Your task to perform on an android device: Add "dell alienware" to the cart on costco.com, then select checkout. Image 0: 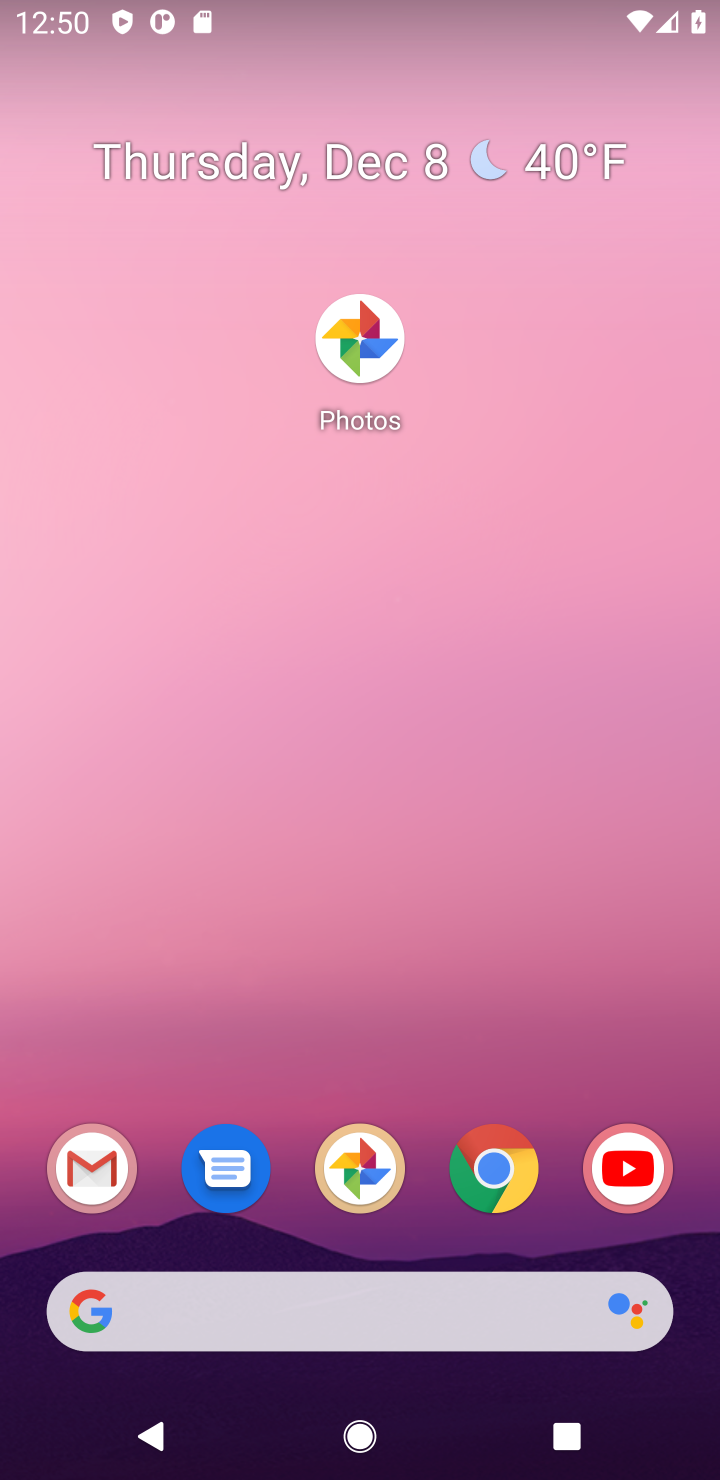
Step 0: drag from (403, 1055) to (393, 74)
Your task to perform on an android device: Add "dell alienware" to the cart on costco.com, then select checkout. Image 1: 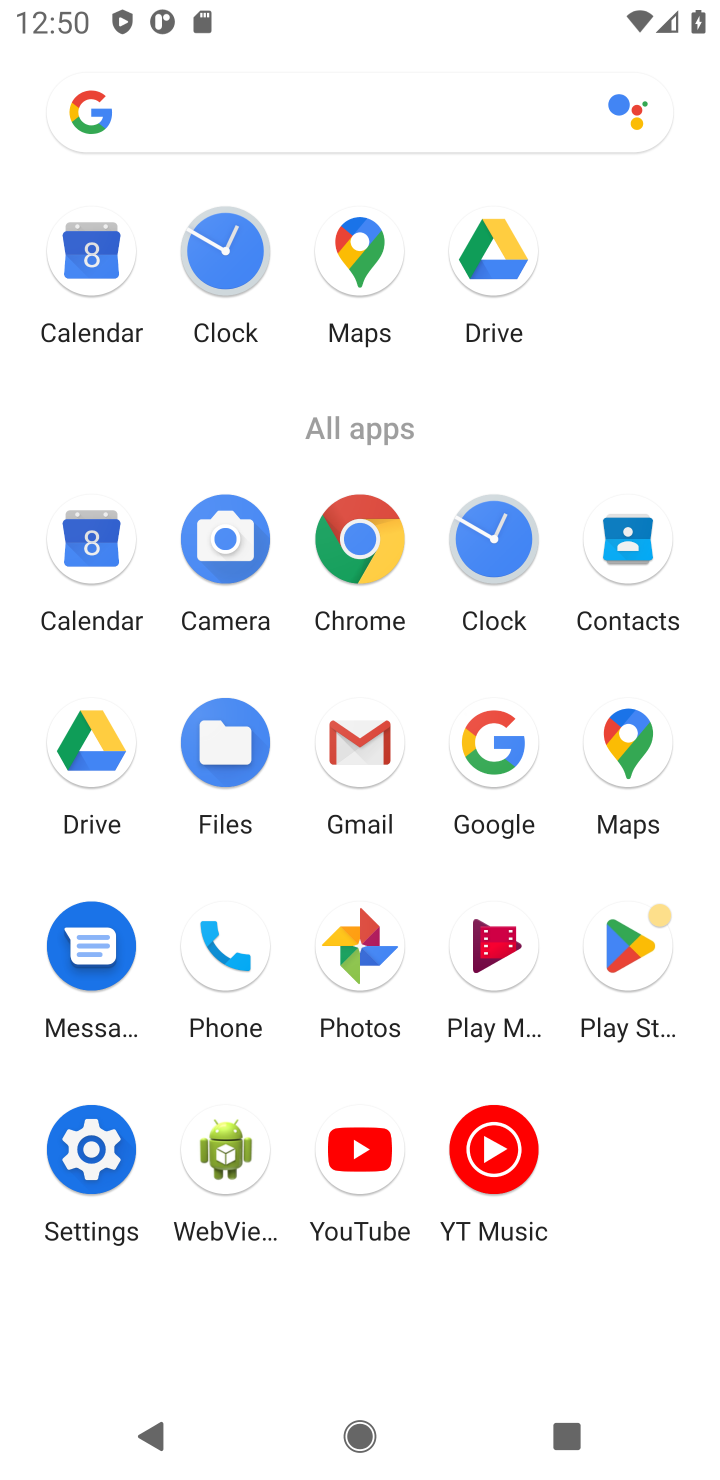
Step 1: click (505, 745)
Your task to perform on an android device: Add "dell alienware" to the cart on costco.com, then select checkout. Image 2: 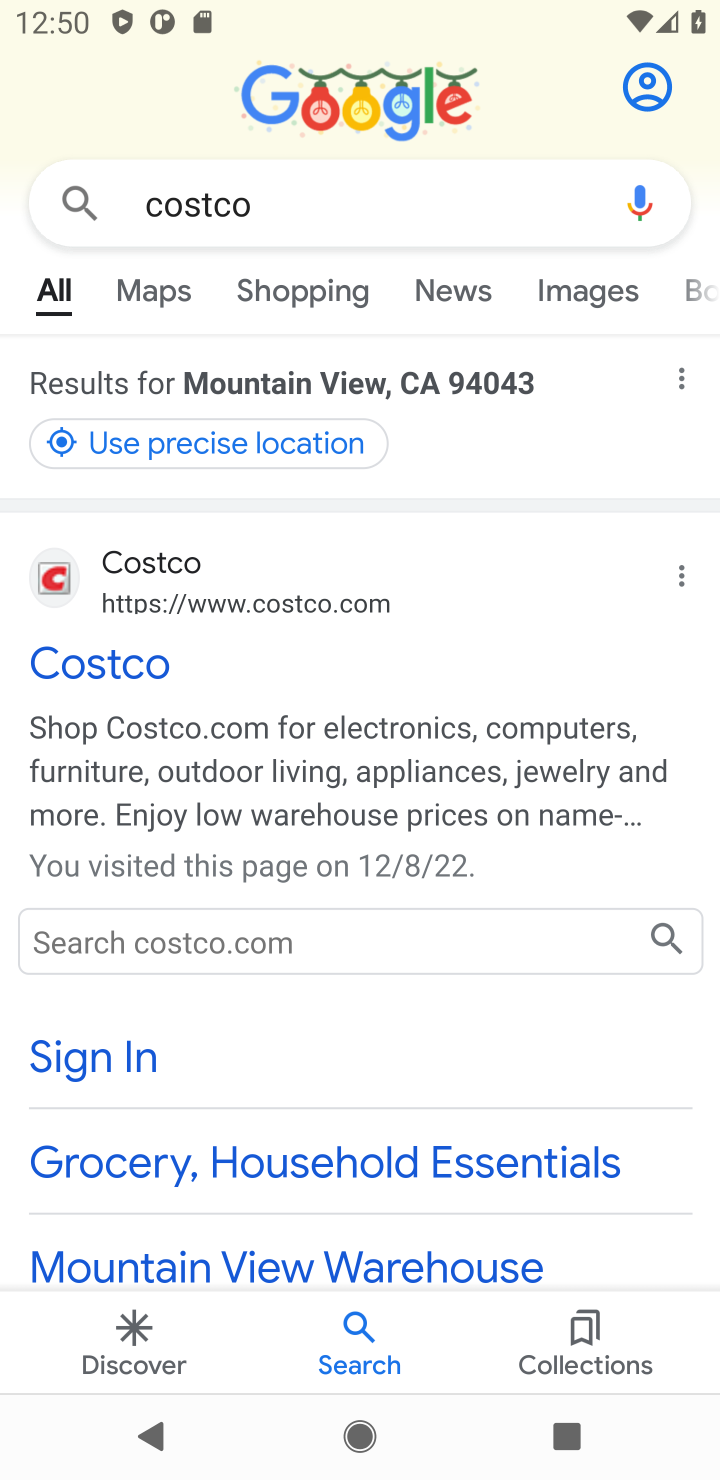
Step 2: click (320, 226)
Your task to perform on an android device: Add "dell alienware" to the cart on costco.com, then select checkout. Image 3: 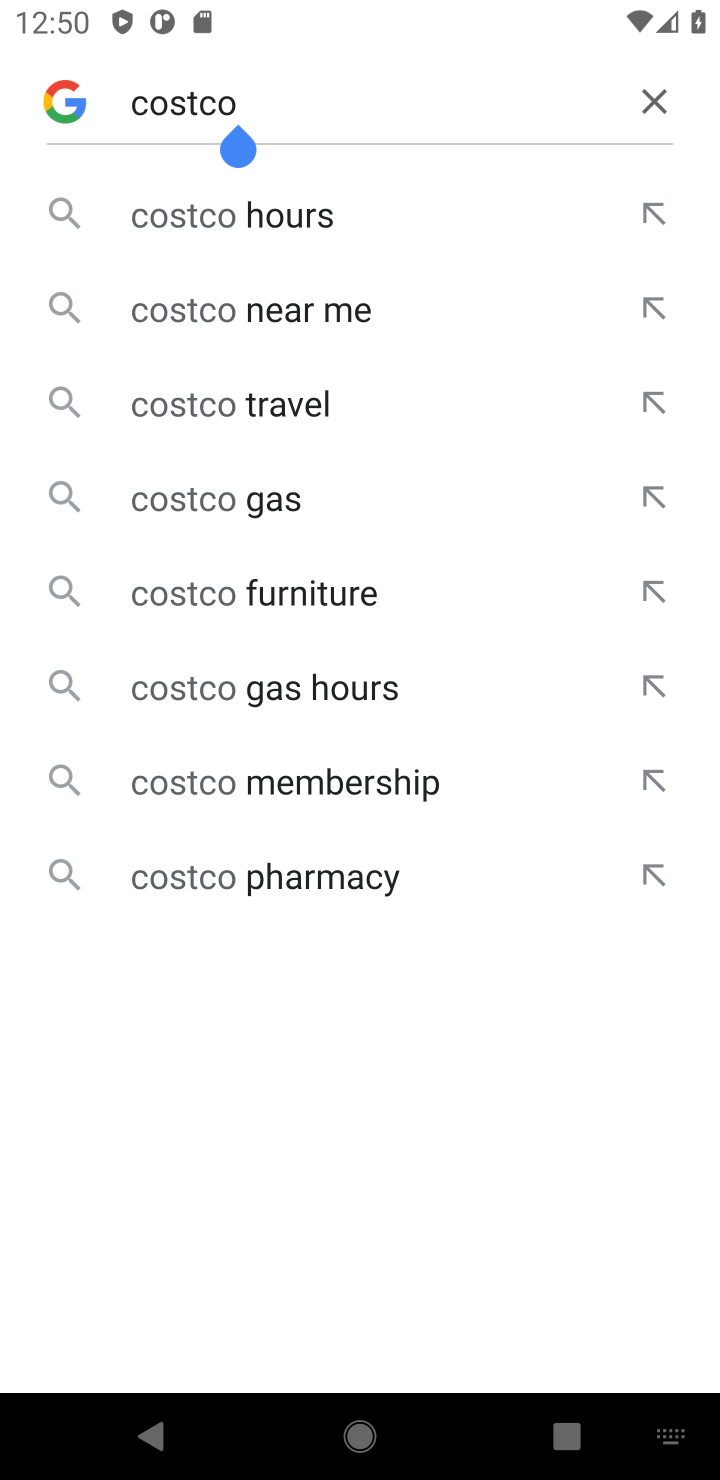
Step 3: click (632, 102)
Your task to perform on an android device: Add "dell alienware" to the cart on costco.com, then select checkout. Image 4: 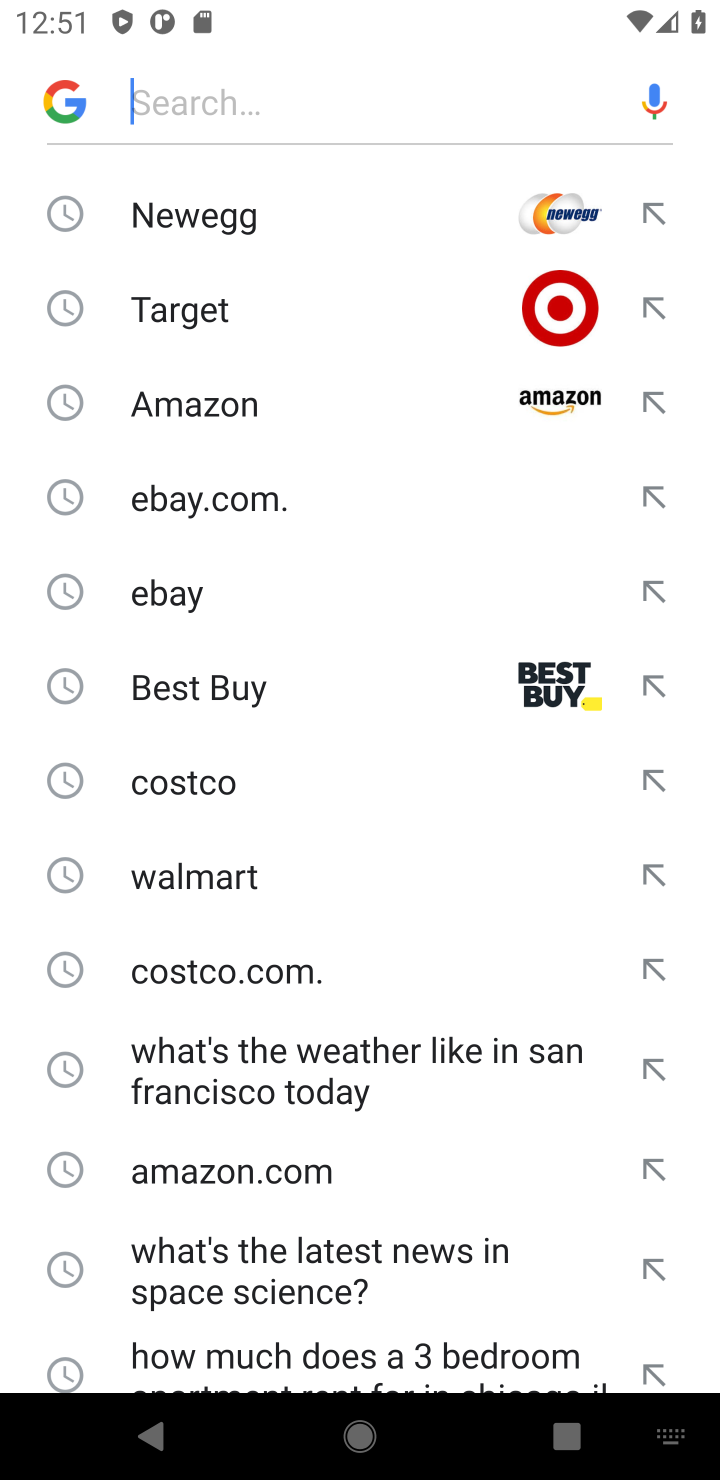
Step 4: click (181, 975)
Your task to perform on an android device: Add "dell alienware" to the cart on costco.com, then select checkout. Image 5: 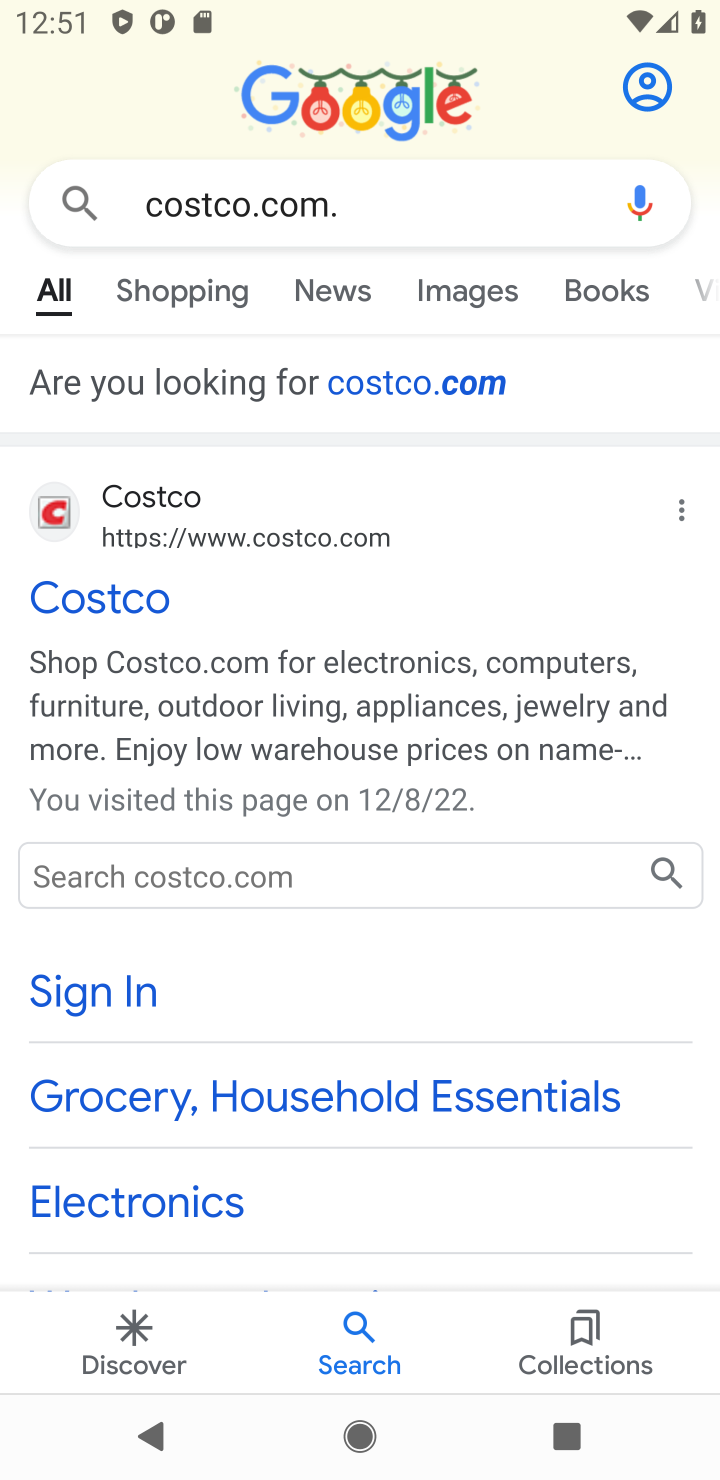
Step 5: click (359, 201)
Your task to perform on an android device: Add "dell alienware" to the cart on costco.com, then select checkout. Image 6: 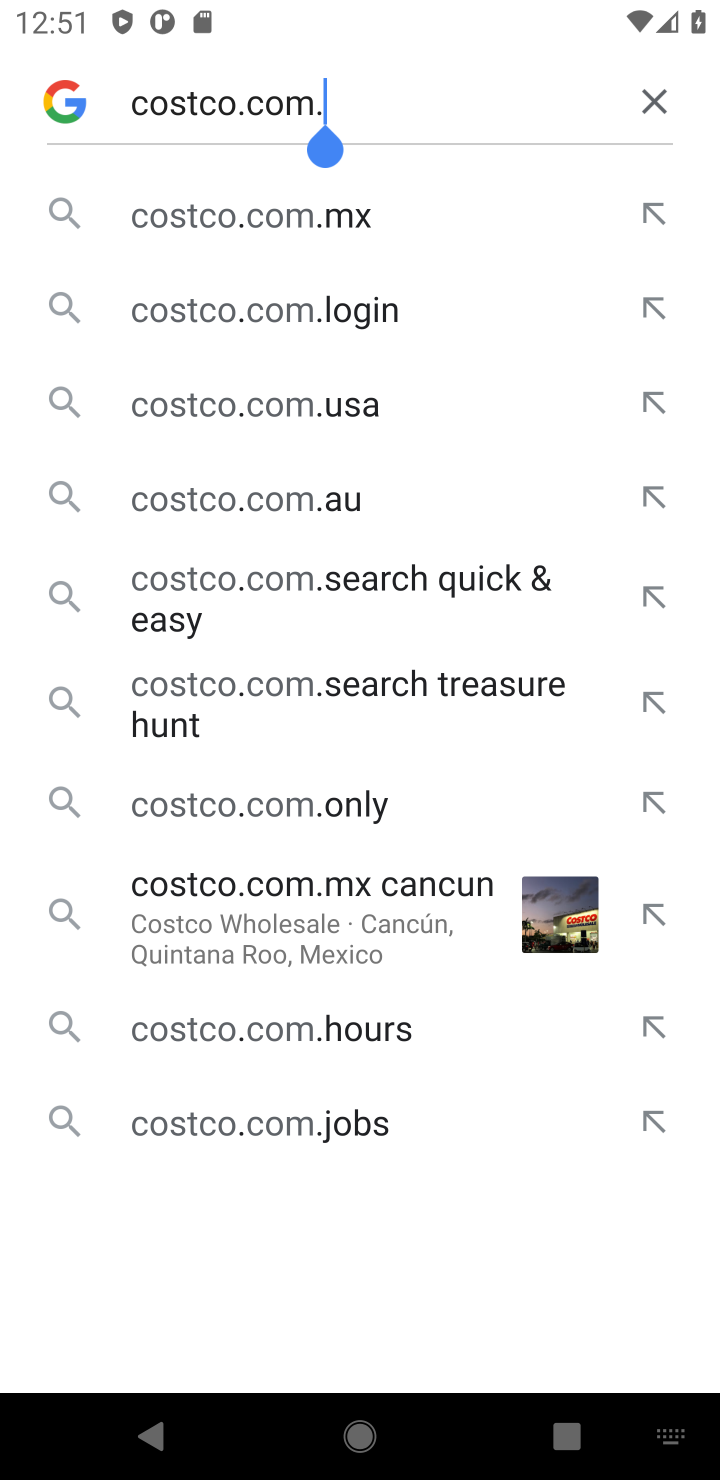
Step 6: click (669, 109)
Your task to perform on an android device: Add "dell alienware" to the cart on costco.com, then select checkout. Image 7: 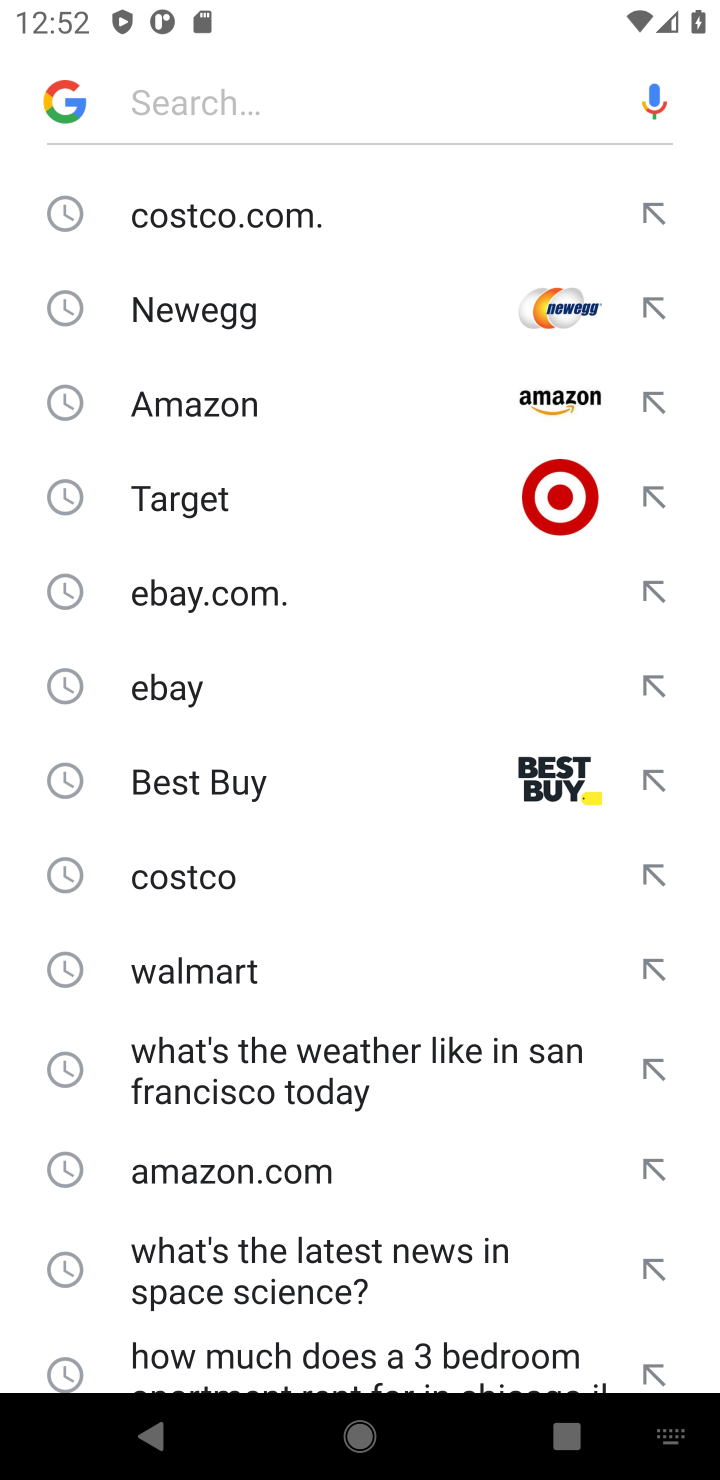
Step 7: click (158, 224)
Your task to perform on an android device: Add "dell alienware" to the cart on costco.com, then select checkout. Image 8: 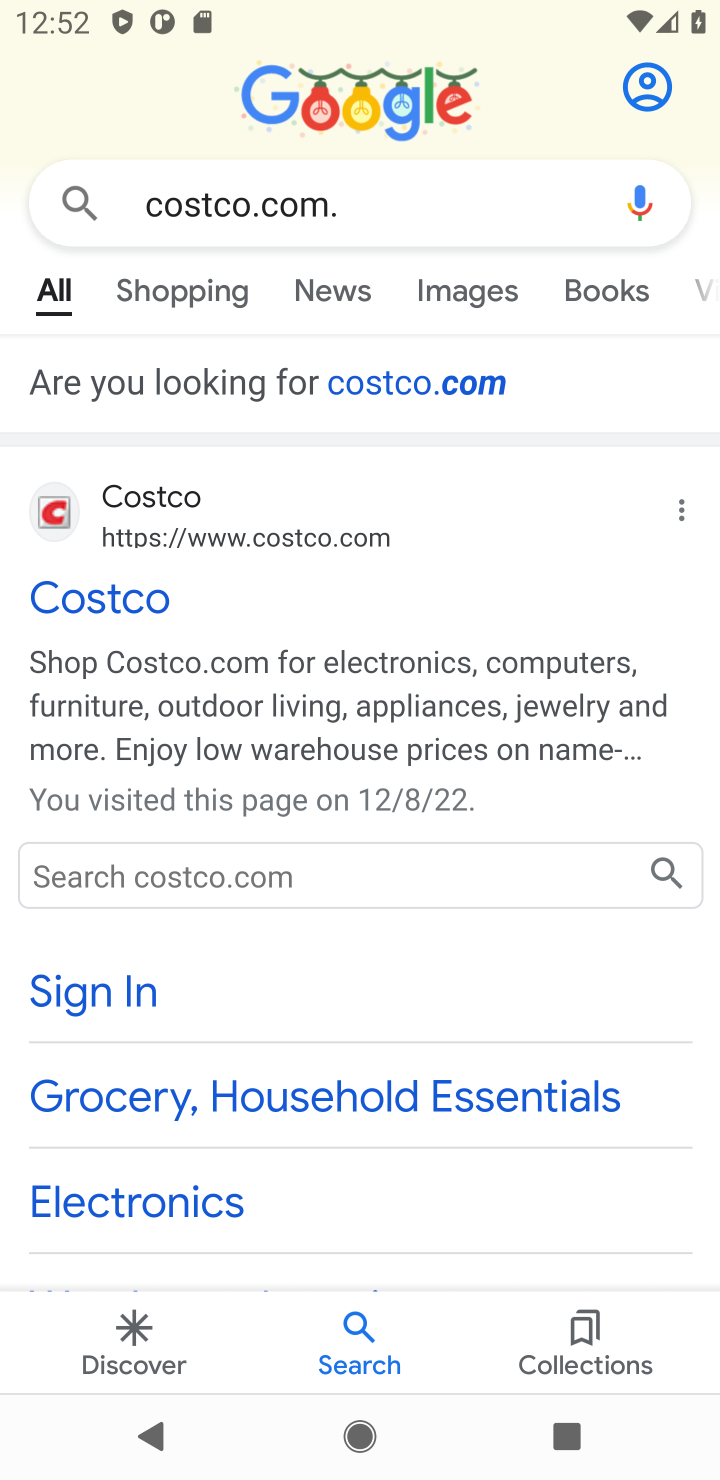
Step 8: click (102, 597)
Your task to perform on an android device: Add "dell alienware" to the cart on costco.com, then select checkout. Image 9: 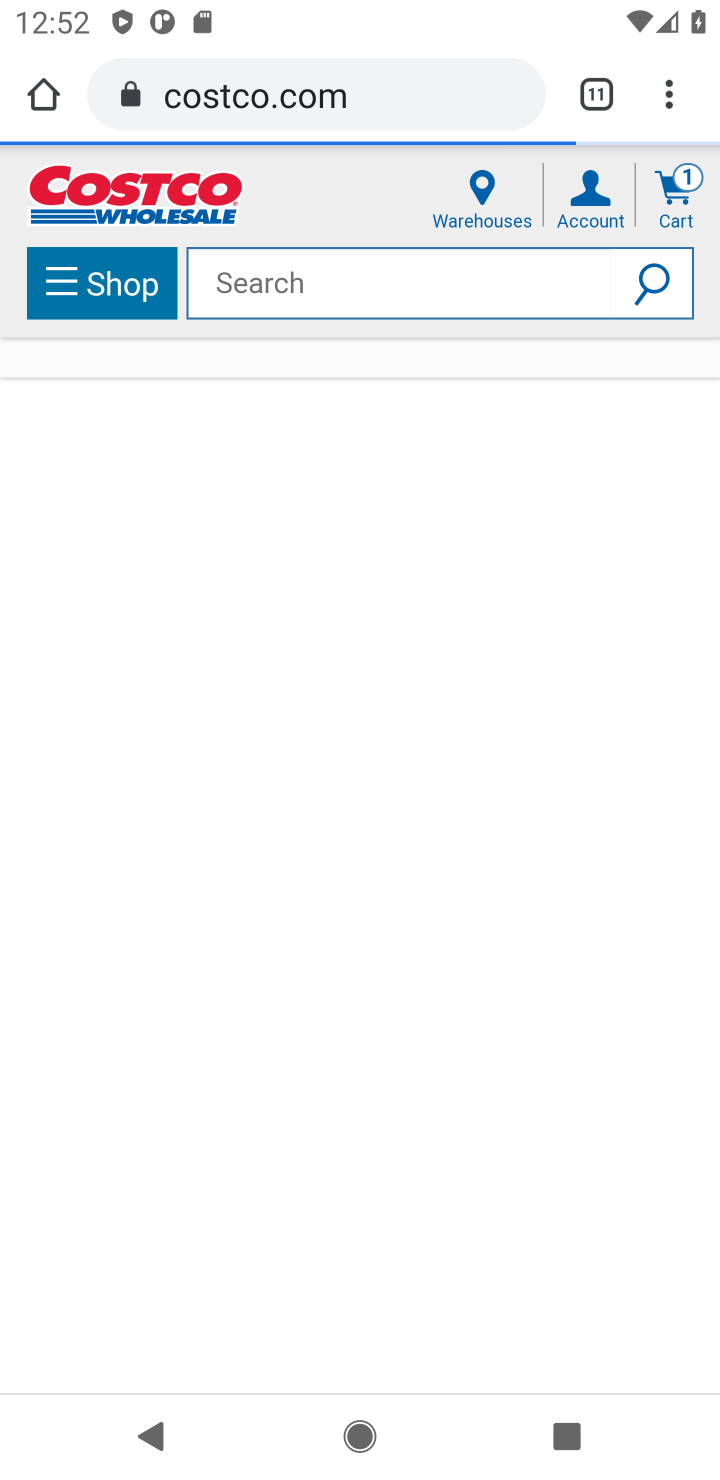
Step 9: click (288, 282)
Your task to perform on an android device: Add "dell alienware" to the cart on costco.com, then select checkout. Image 10: 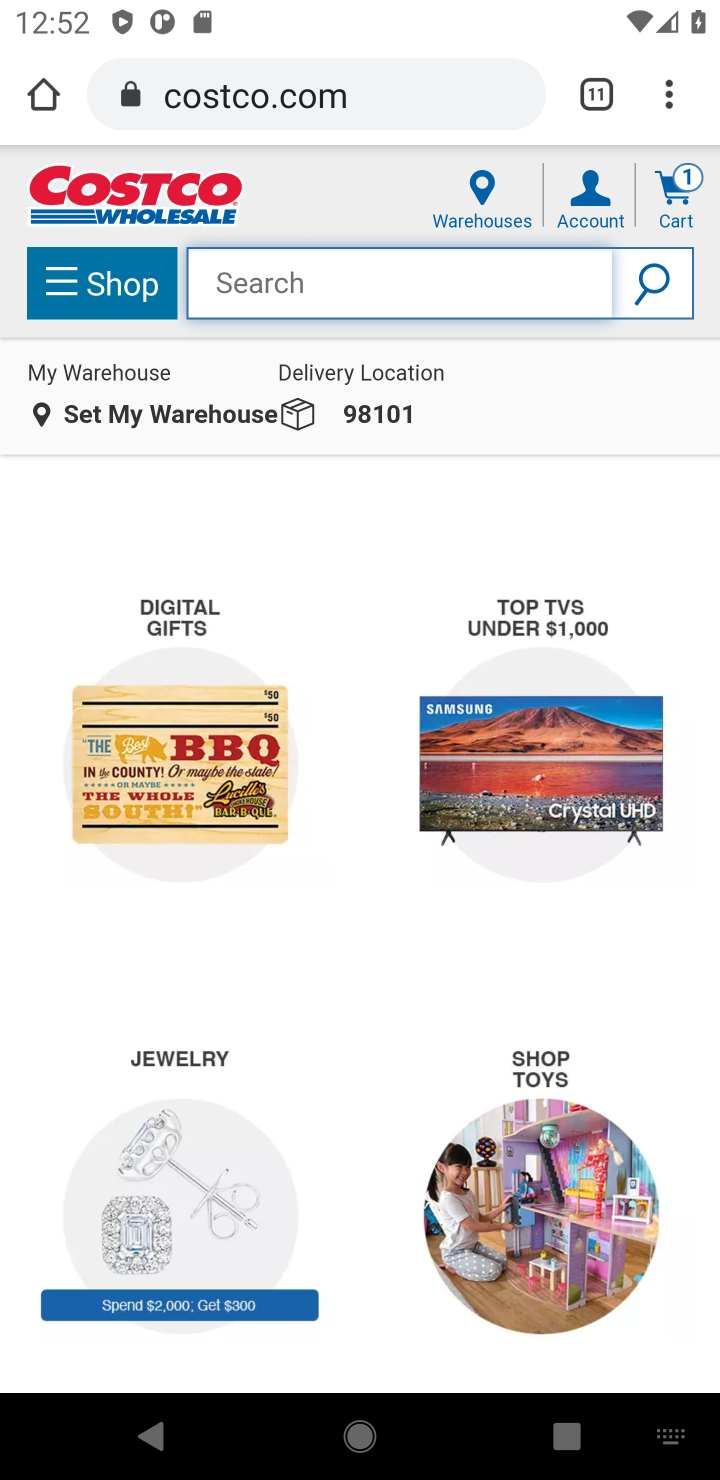
Step 10: type "dell alienware"
Your task to perform on an android device: Add "dell alienware" to the cart on costco.com, then select checkout. Image 11: 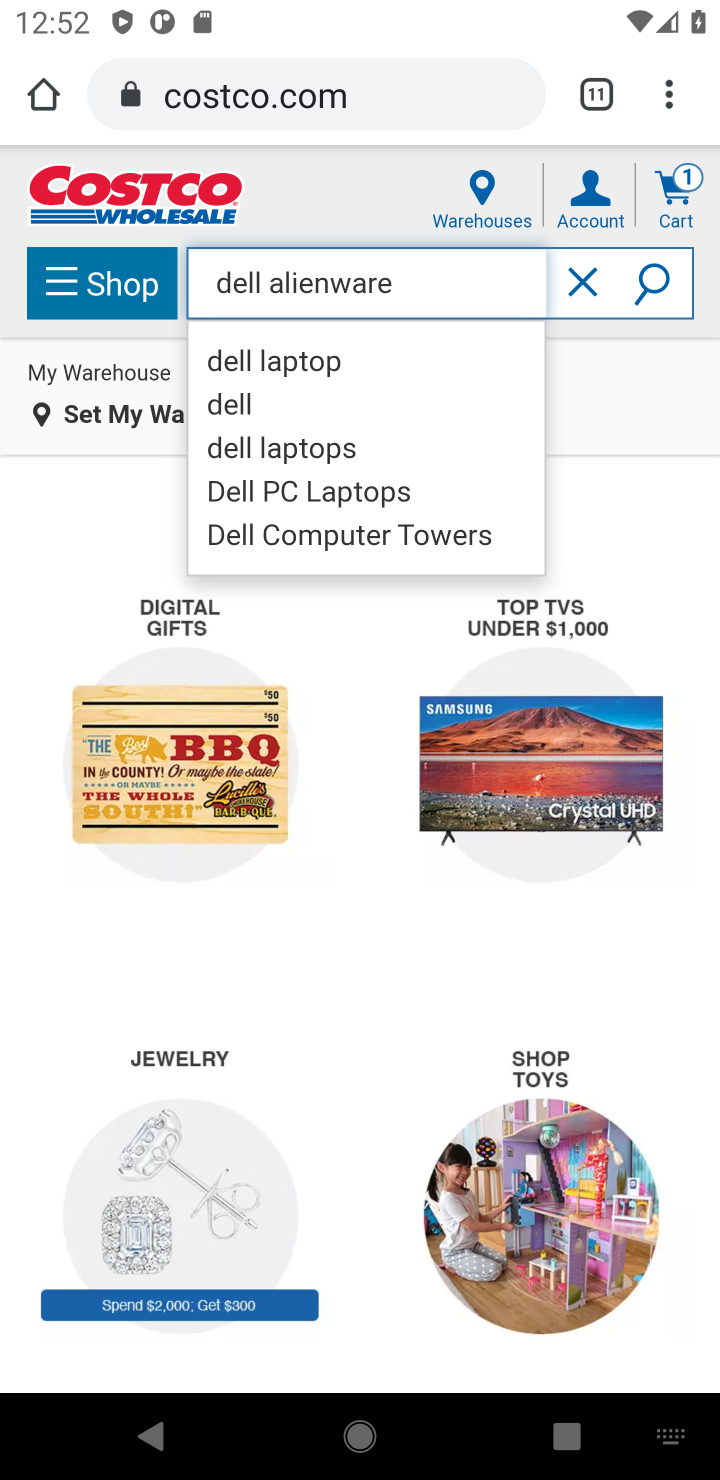
Step 11: click (649, 286)
Your task to perform on an android device: Add "dell alienware" to the cart on costco.com, then select checkout. Image 12: 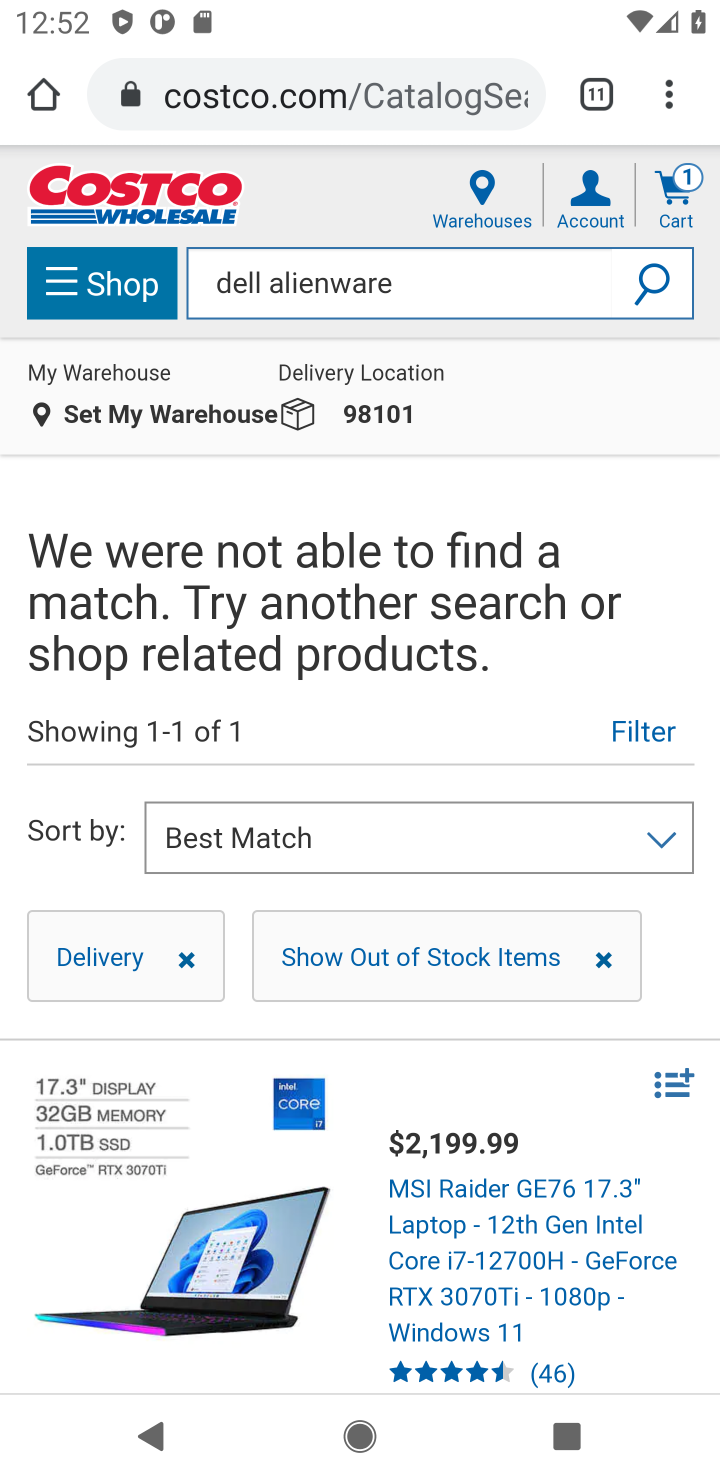
Step 12: drag from (552, 1358) to (555, 574)
Your task to perform on an android device: Add "dell alienware" to the cart on costco.com, then select checkout. Image 13: 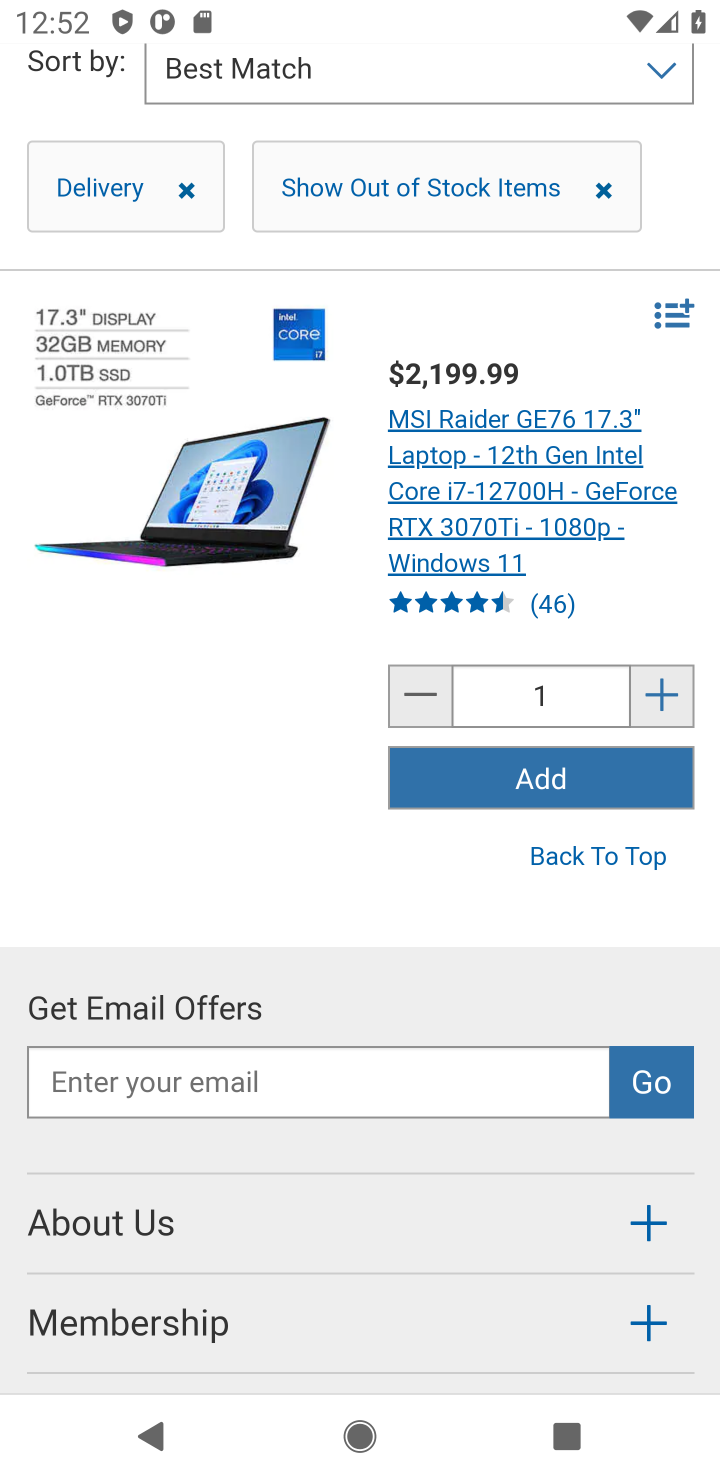
Step 13: click (538, 785)
Your task to perform on an android device: Add "dell alienware" to the cart on costco.com, then select checkout. Image 14: 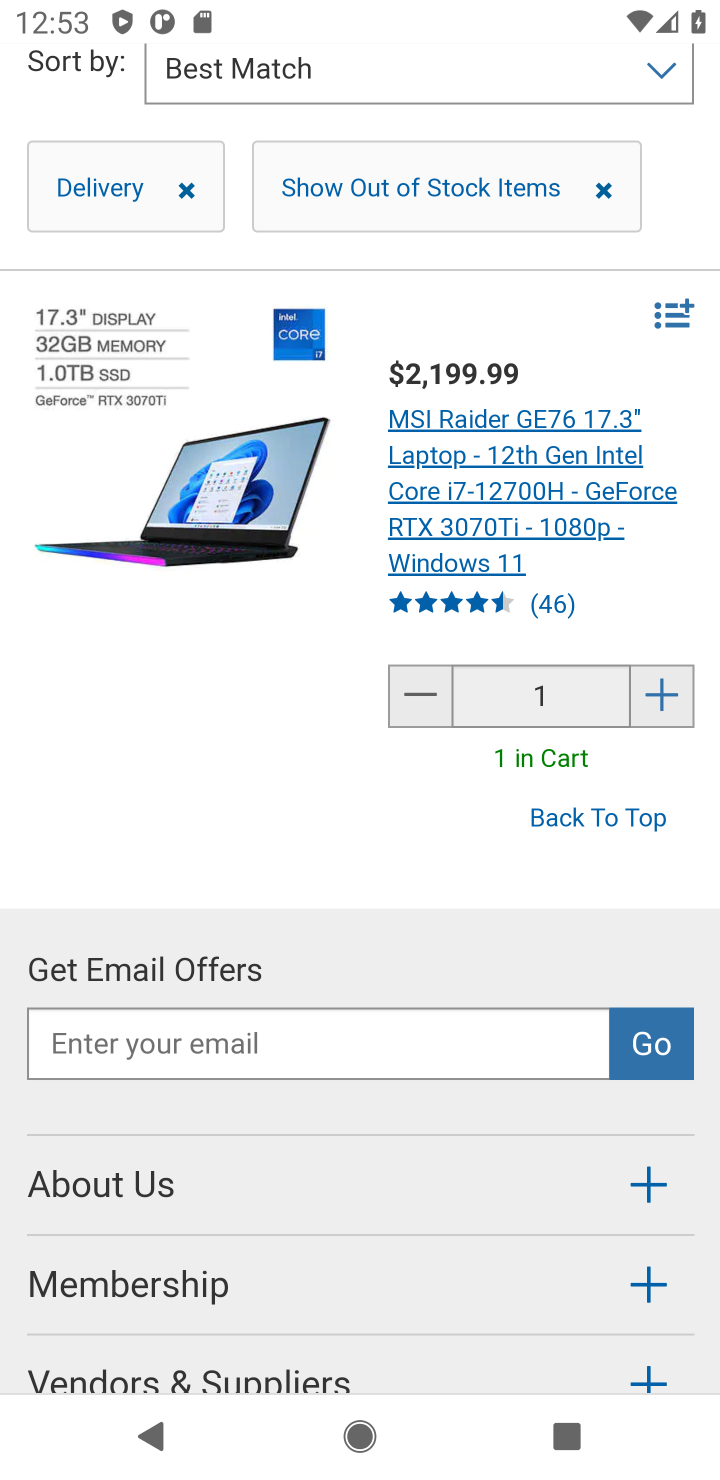
Step 14: drag from (235, 119) to (262, 711)
Your task to perform on an android device: Add "dell alienware" to the cart on costco.com, then select checkout. Image 15: 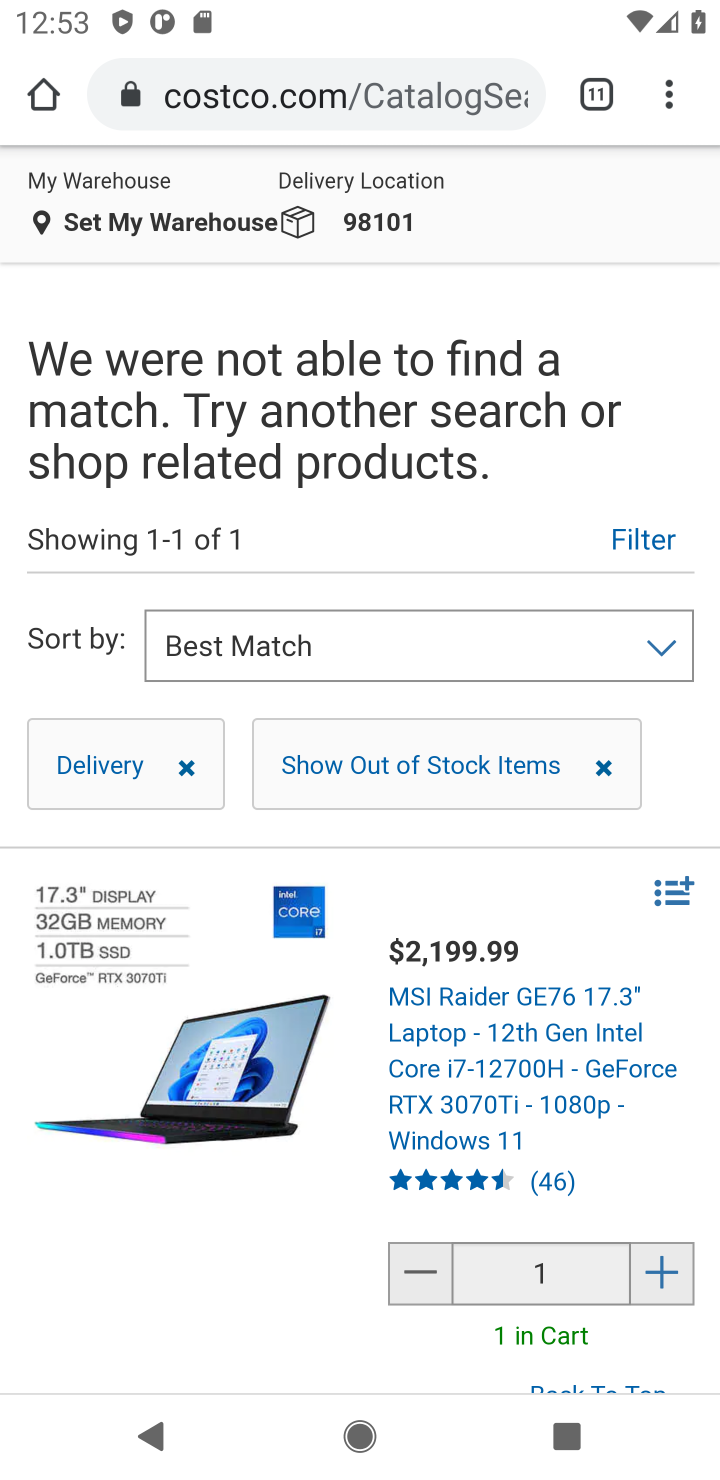
Step 15: drag from (422, 227) to (449, 1134)
Your task to perform on an android device: Add "dell alienware" to the cart on costco.com, then select checkout. Image 16: 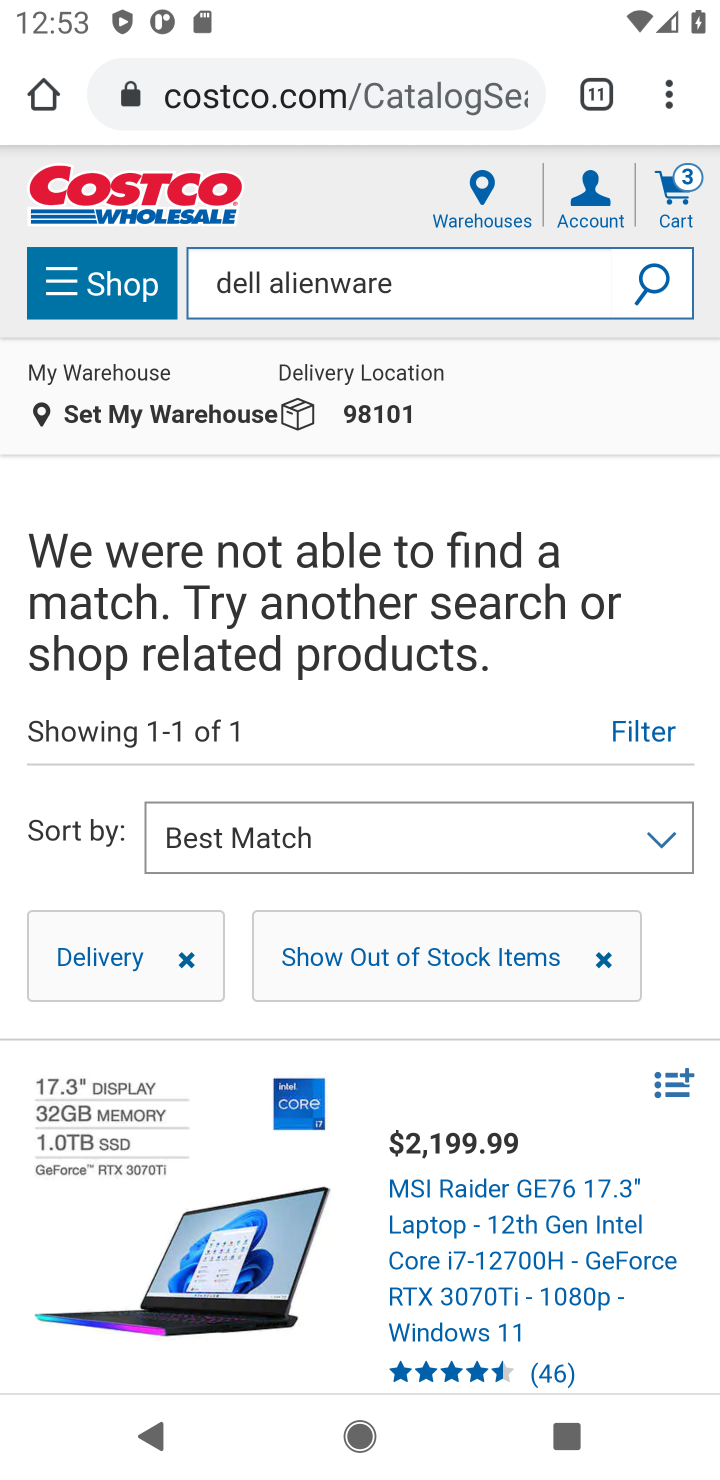
Step 16: click (712, 173)
Your task to perform on an android device: Add "dell alienware" to the cart on costco.com, then select checkout. Image 17: 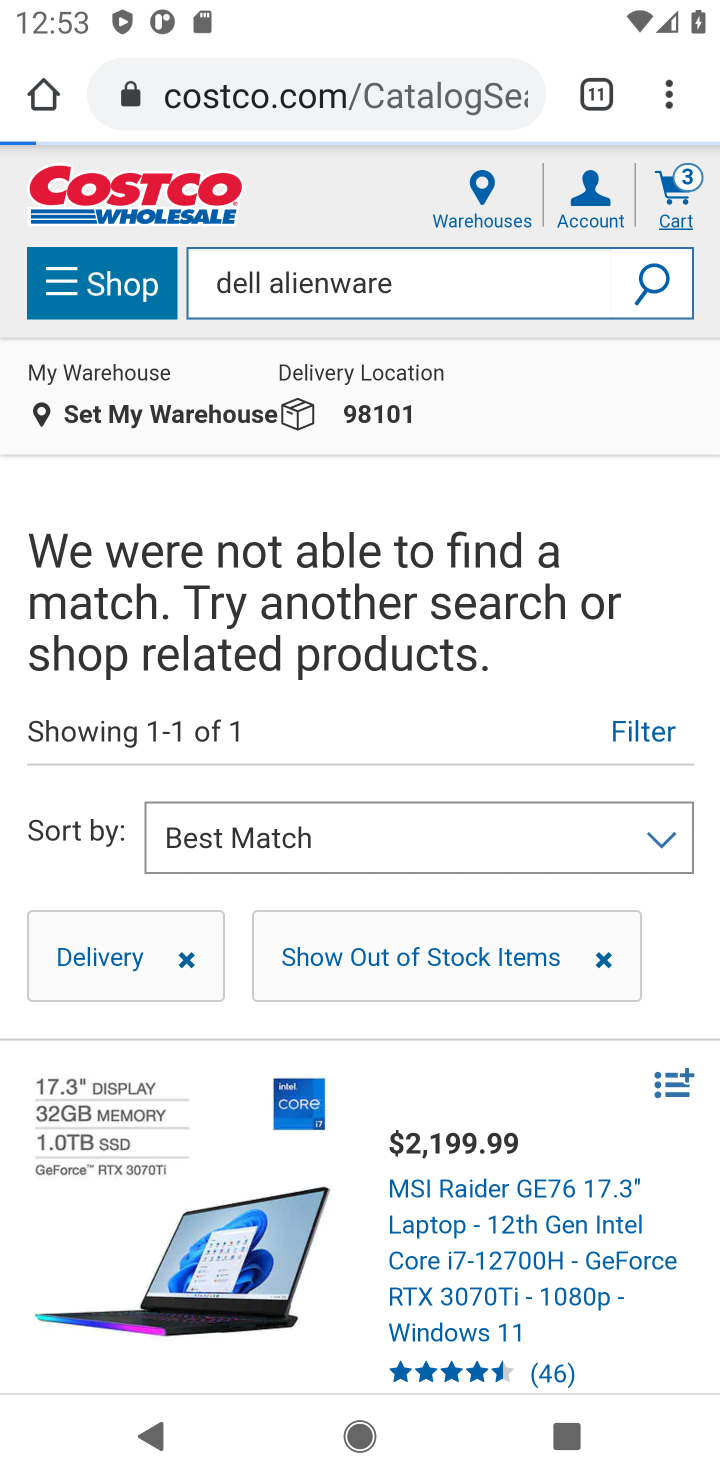
Step 17: click (670, 205)
Your task to perform on an android device: Add "dell alienware" to the cart on costco.com, then select checkout. Image 18: 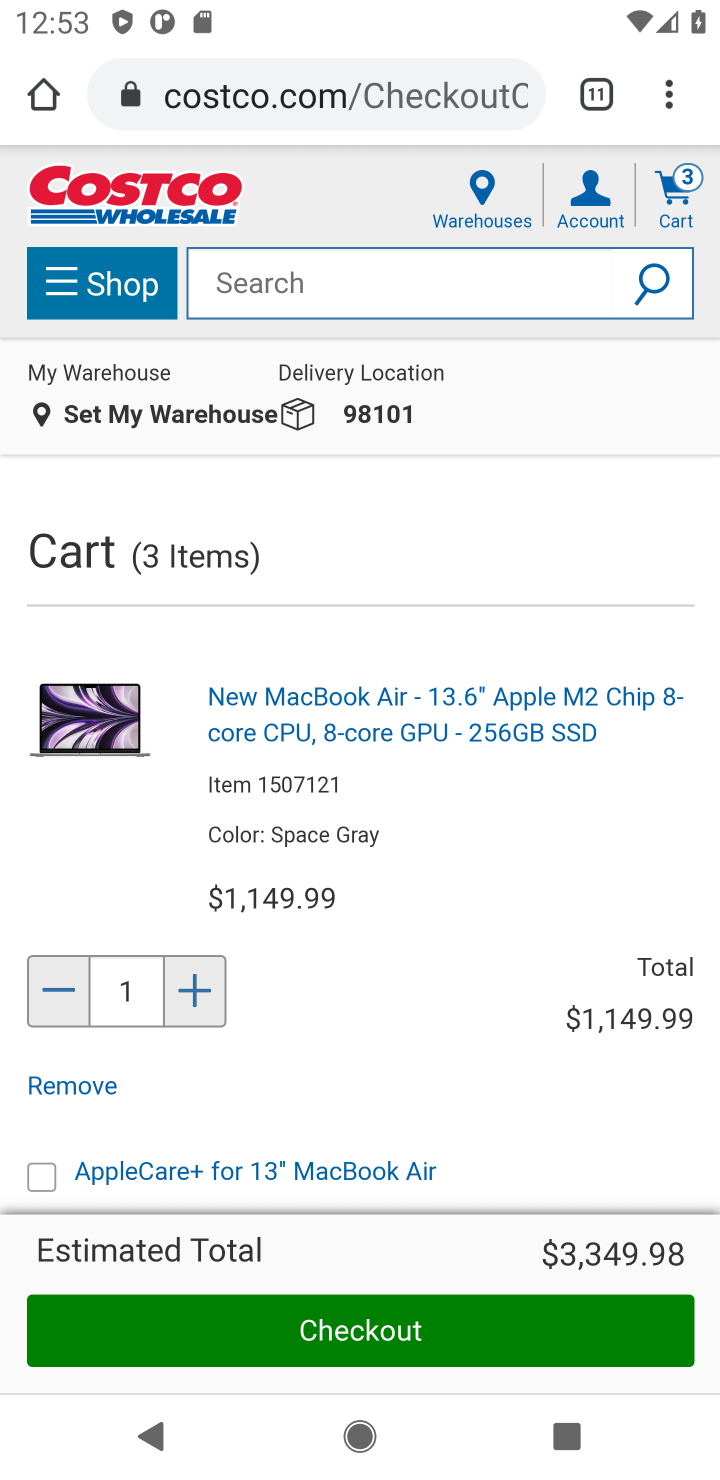
Step 18: click (357, 1328)
Your task to perform on an android device: Add "dell alienware" to the cart on costco.com, then select checkout. Image 19: 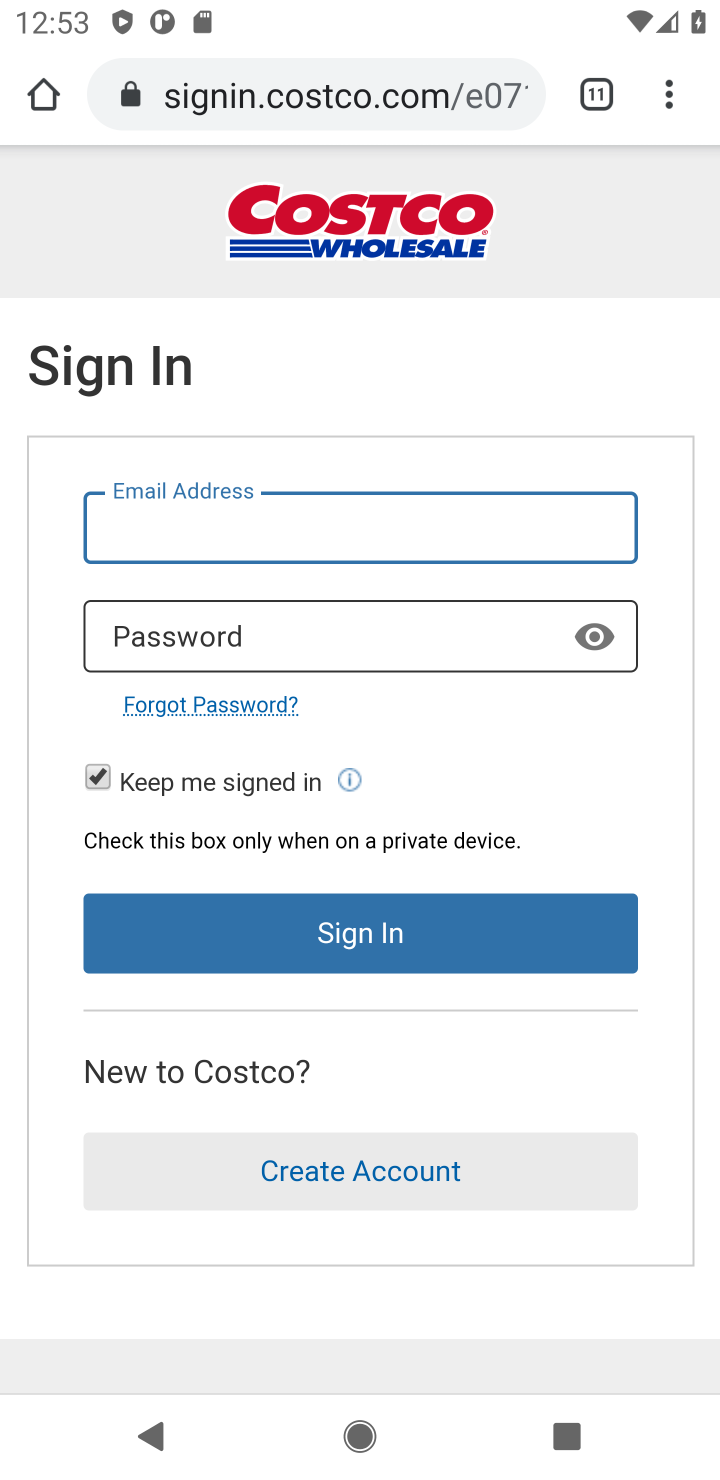
Step 19: task complete